Your task to perform on an android device: Open Google Chrome Image 0: 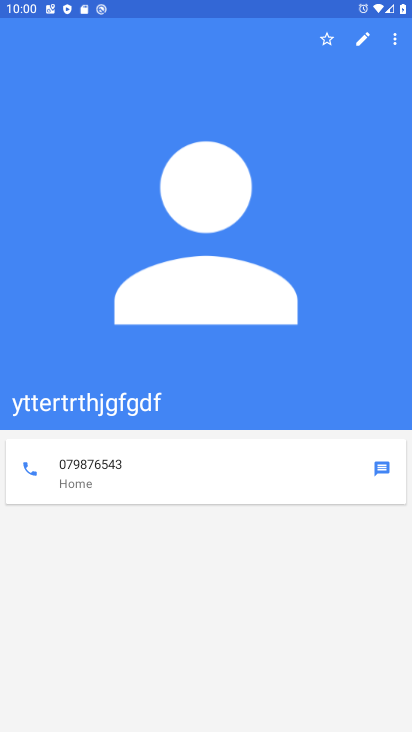
Step 0: press home button
Your task to perform on an android device: Open Google Chrome Image 1: 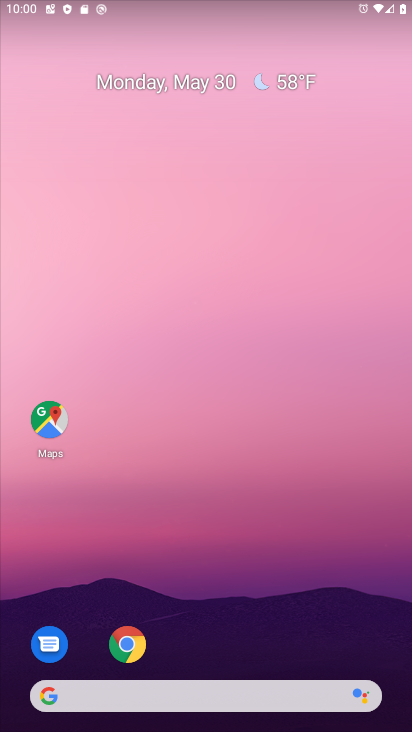
Step 1: click (126, 644)
Your task to perform on an android device: Open Google Chrome Image 2: 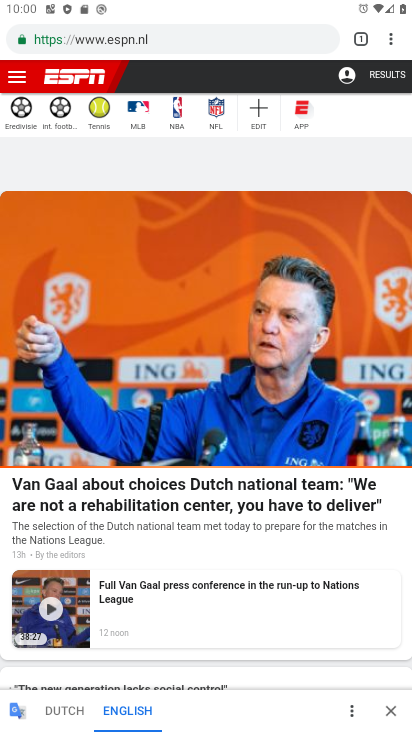
Step 2: press back button
Your task to perform on an android device: Open Google Chrome Image 3: 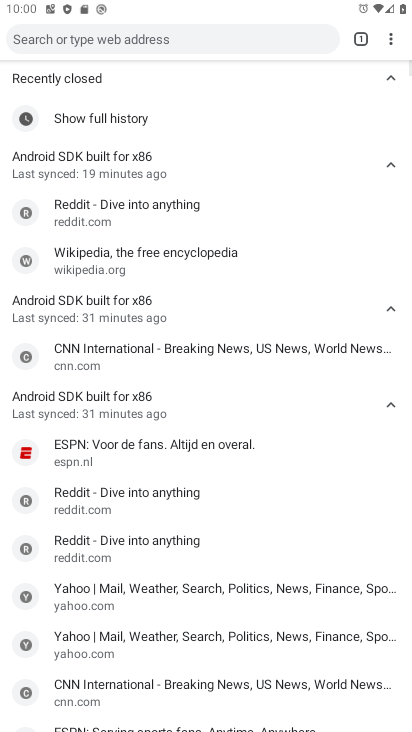
Step 3: press back button
Your task to perform on an android device: Open Google Chrome Image 4: 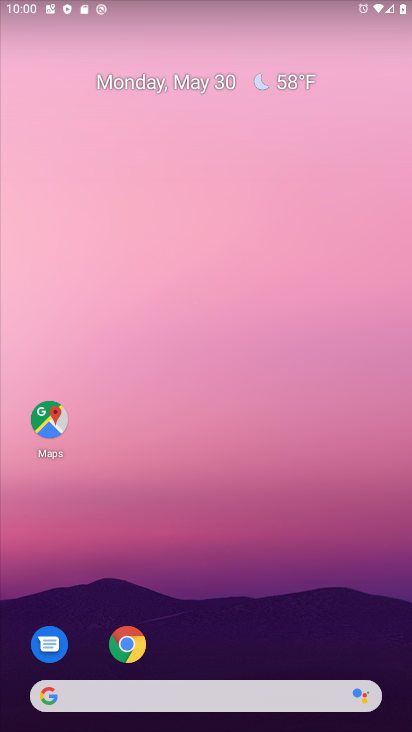
Step 4: click (123, 649)
Your task to perform on an android device: Open Google Chrome Image 5: 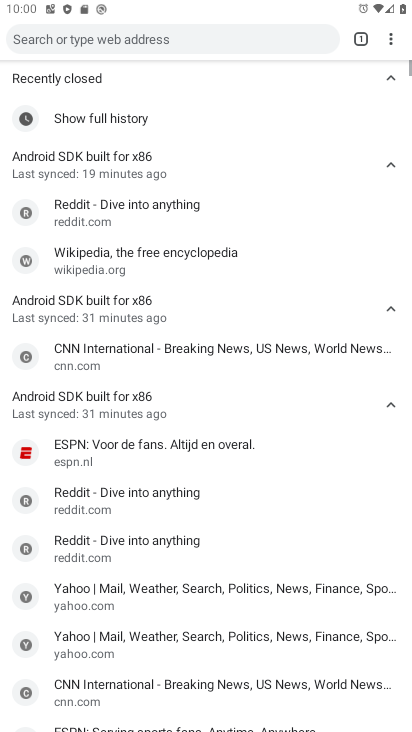
Step 5: task complete